Your task to perform on an android device: delete a single message in the gmail app Image 0: 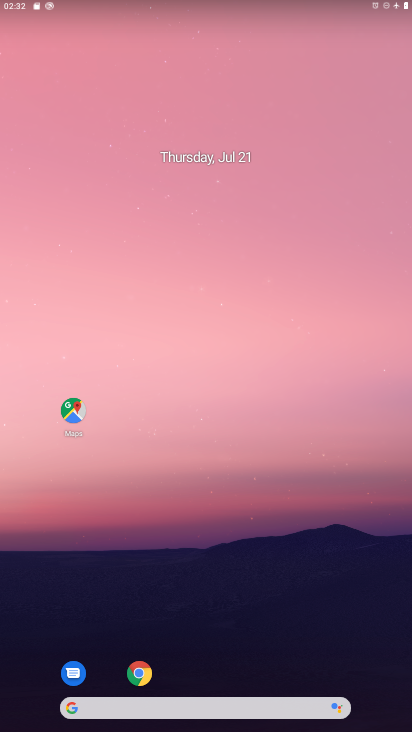
Step 0: drag from (186, 574) to (184, 404)
Your task to perform on an android device: delete a single message in the gmail app Image 1: 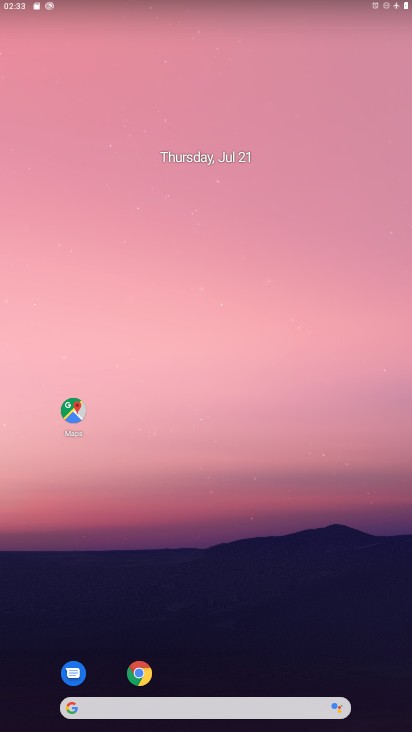
Step 1: drag from (212, 653) to (230, 20)
Your task to perform on an android device: delete a single message in the gmail app Image 2: 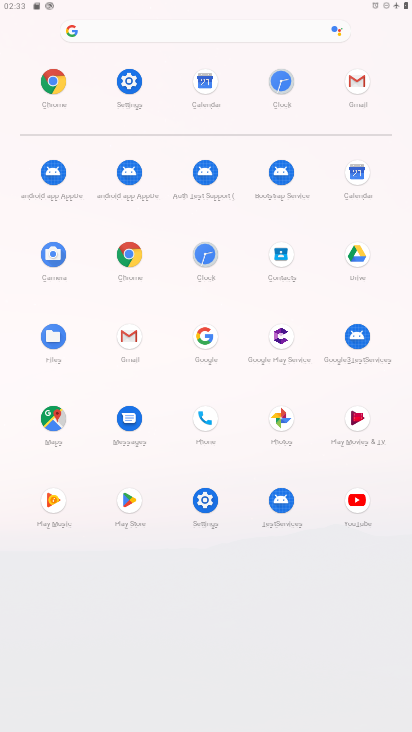
Step 2: click (364, 74)
Your task to perform on an android device: delete a single message in the gmail app Image 3: 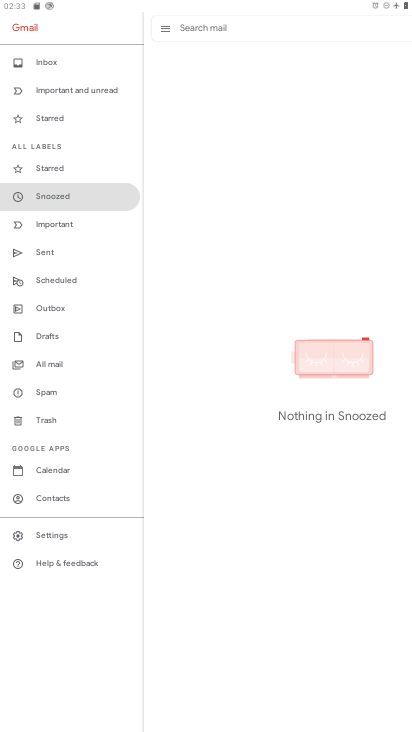
Step 3: task complete